Your task to perform on an android device: turn on location history Image 0: 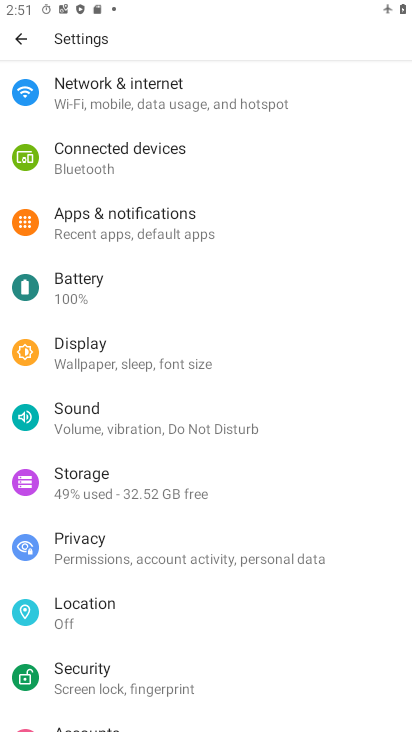
Step 0: click (112, 625)
Your task to perform on an android device: turn on location history Image 1: 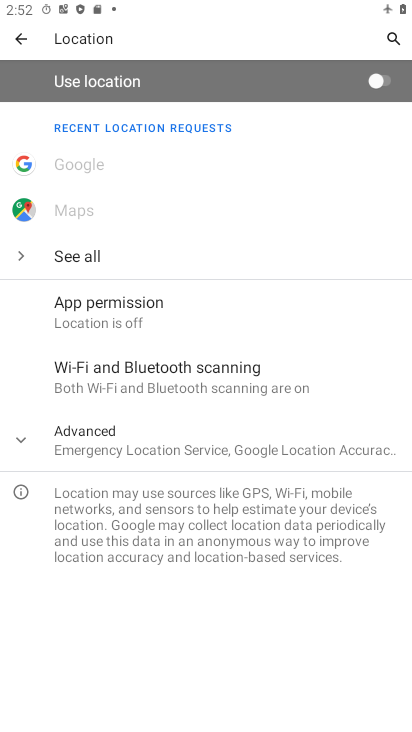
Step 1: click (188, 457)
Your task to perform on an android device: turn on location history Image 2: 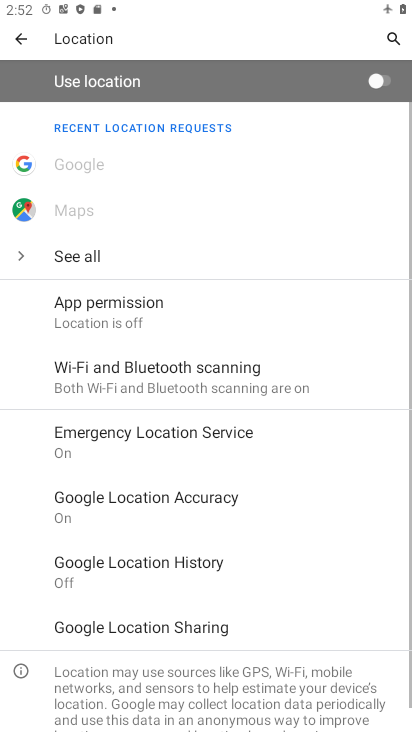
Step 2: drag from (201, 509) to (183, 322)
Your task to perform on an android device: turn on location history Image 3: 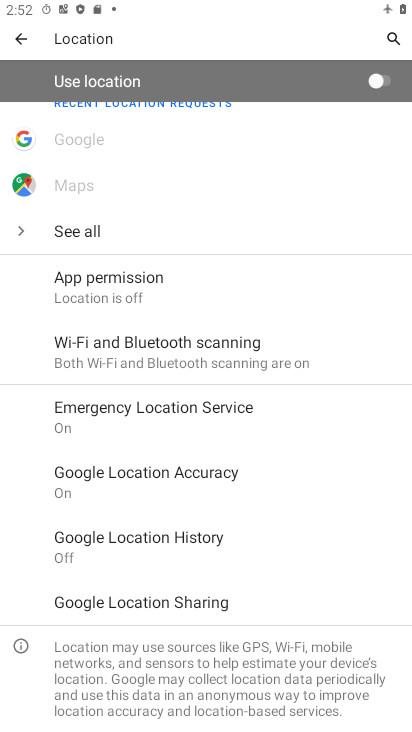
Step 3: click (215, 551)
Your task to perform on an android device: turn on location history Image 4: 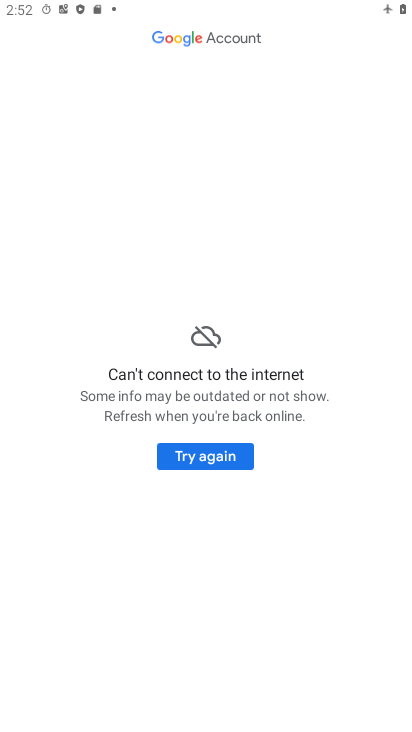
Step 4: task complete